Your task to perform on an android device: toggle improve location accuracy Image 0: 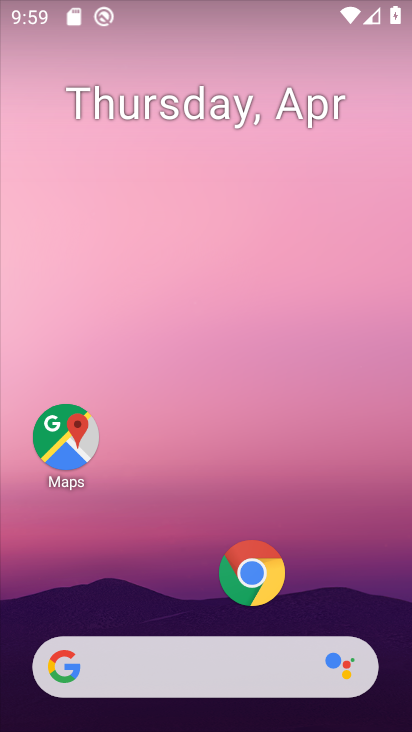
Step 0: drag from (188, 495) to (194, 182)
Your task to perform on an android device: toggle improve location accuracy Image 1: 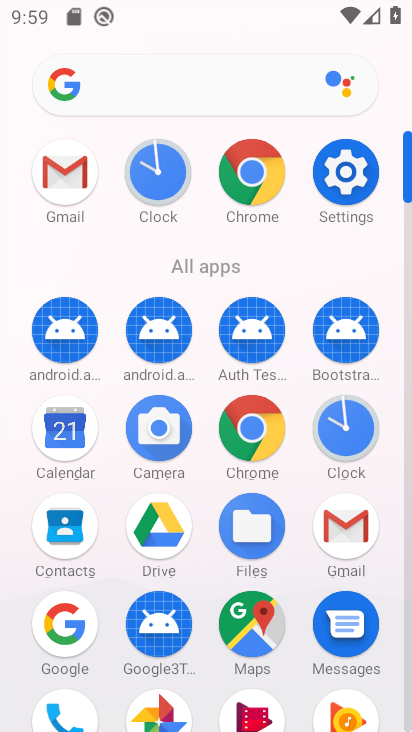
Step 1: click (327, 169)
Your task to perform on an android device: toggle improve location accuracy Image 2: 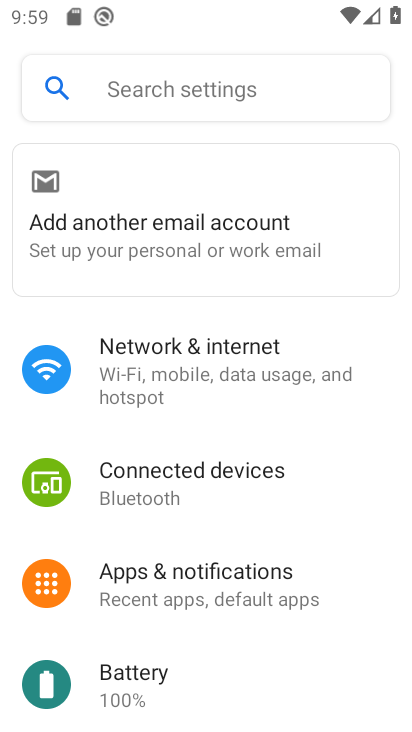
Step 2: drag from (257, 550) to (279, 208)
Your task to perform on an android device: toggle improve location accuracy Image 3: 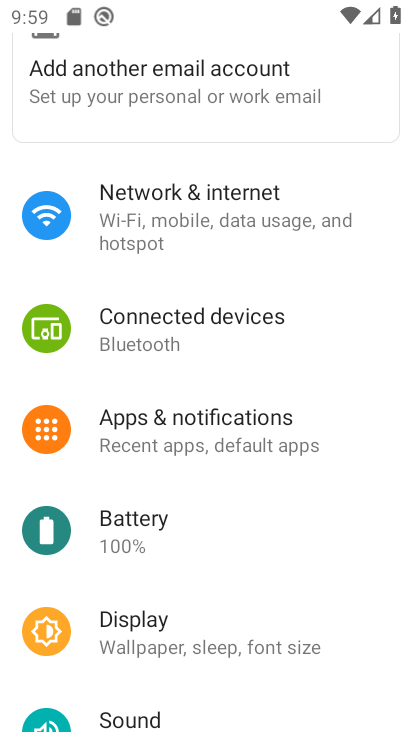
Step 3: drag from (230, 444) to (254, 304)
Your task to perform on an android device: toggle improve location accuracy Image 4: 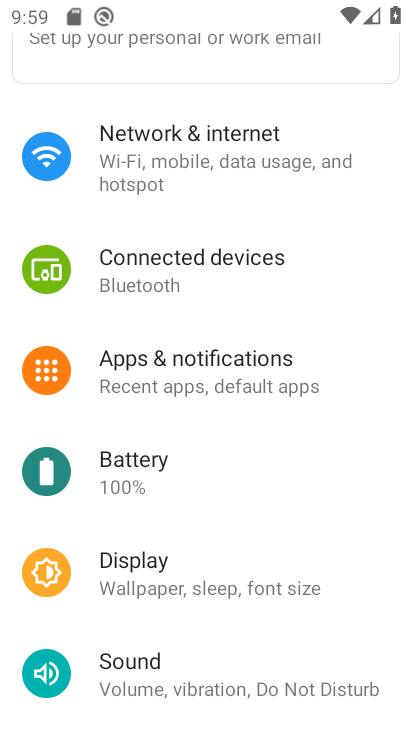
Step 4: drag from (217, 658) to (272, 351)
Your task to perform on an android device: toggle improve location accuracy Image 5: 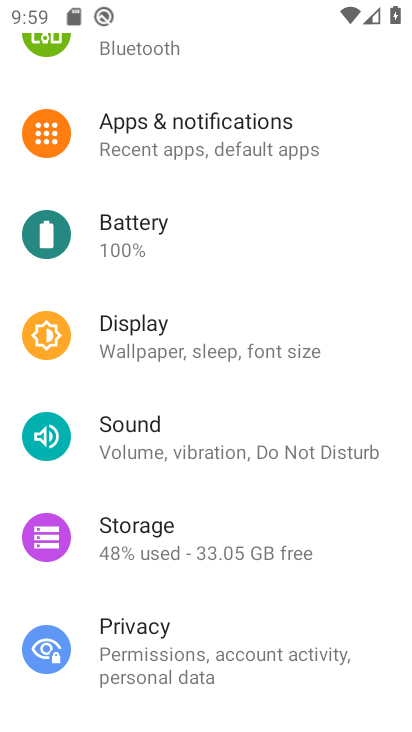
Step 5: drag from (227, 642) to (244, 316)
Your task to perform on an android device: toggle improve location accuracy Image 6: 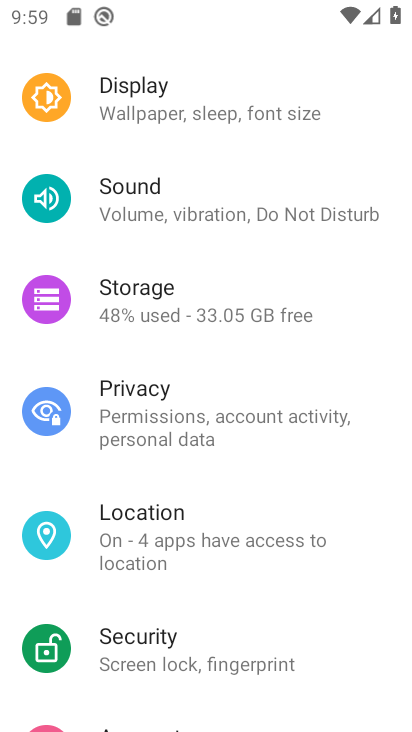
Step 6: click (226, 567)
Your task to perform on an android device: toggle improve location accuracy Image 7: 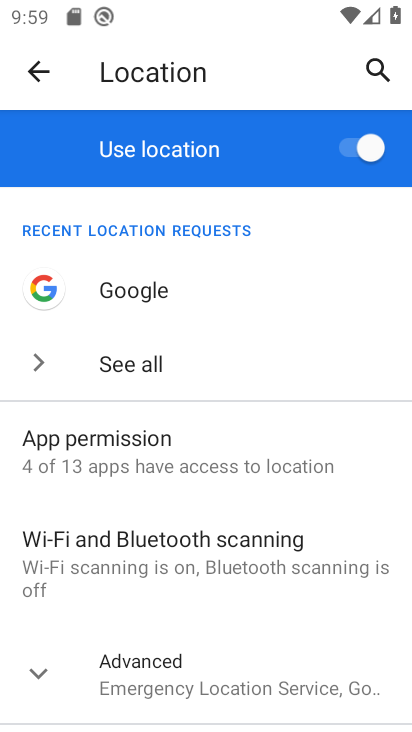
Step 7: click (239, 679)
Your task to perform on an android device: toggle improve location accuracy Image 8: 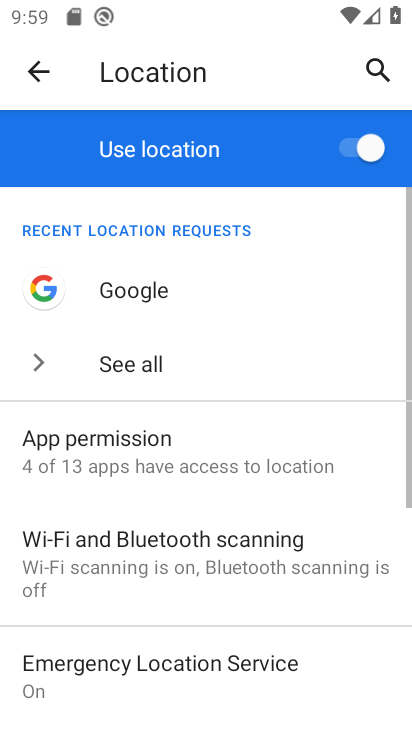
Step 8: drag from (258, 607) to (302, 227)
Your task to perform on an android device: toggle improve location accuracy Image 9: 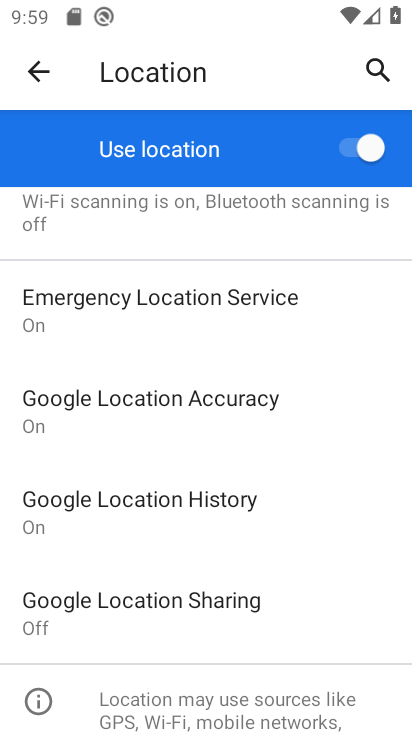
Step 9: click (243, 408)
Your task to perform on an android device: toggle improve location accuracy Image 10: 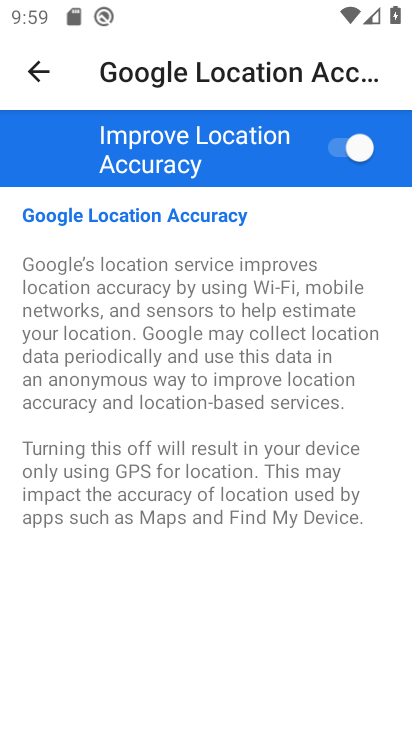
Step 10: click (342, 150)
Your task to perform on an android device: toggle improve location accuracy Image 11: 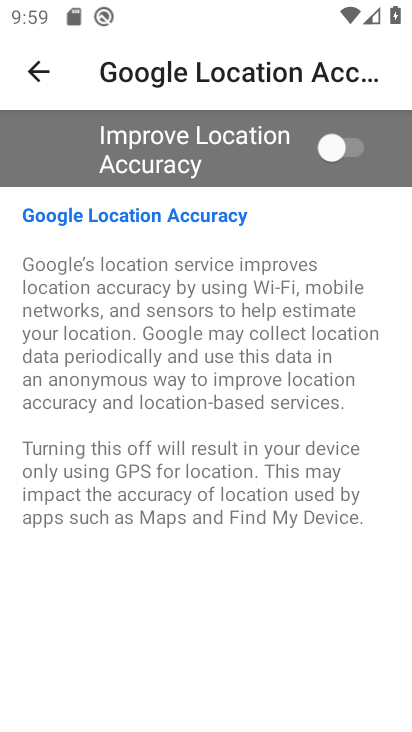
Step 11: task complete